Your task to perform on an android device: Search for sushi restaurants on Maps Image 0: 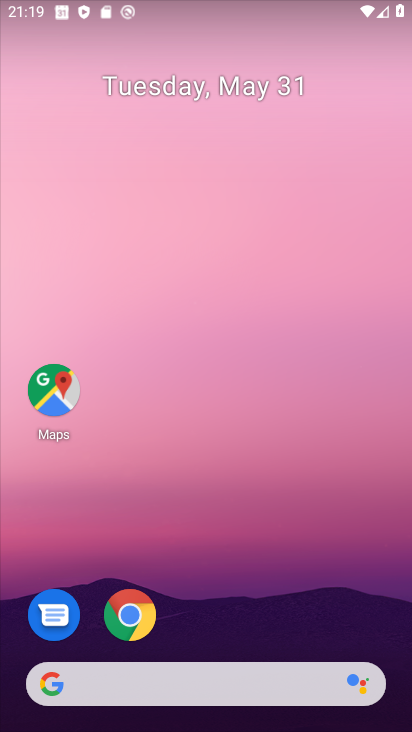
Step 0: press home button
Your task to perform on an android device: Search for sushi restaurants on Maps Image 1: 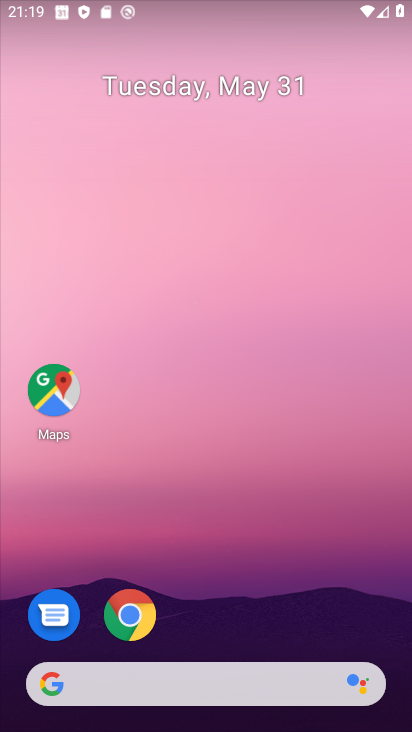
Step 1: click (66, 379)
Your task to perform on an android device: Search for sushi restaurants on Maps Image 2: 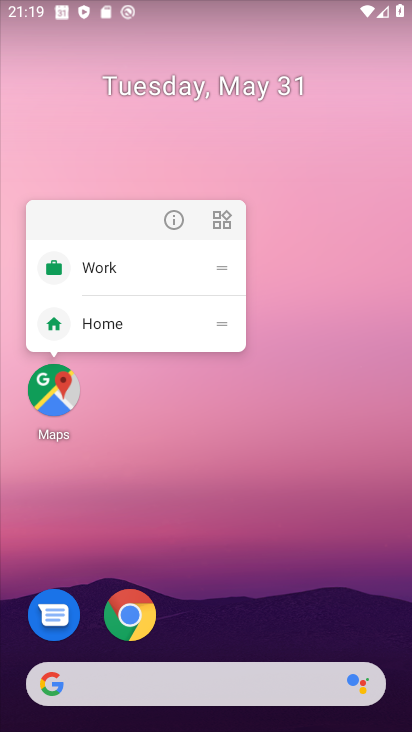
Step 2: click (39, 395)
Your task to perform on an android device: Search for sushi restaurants on Maps Image 3: 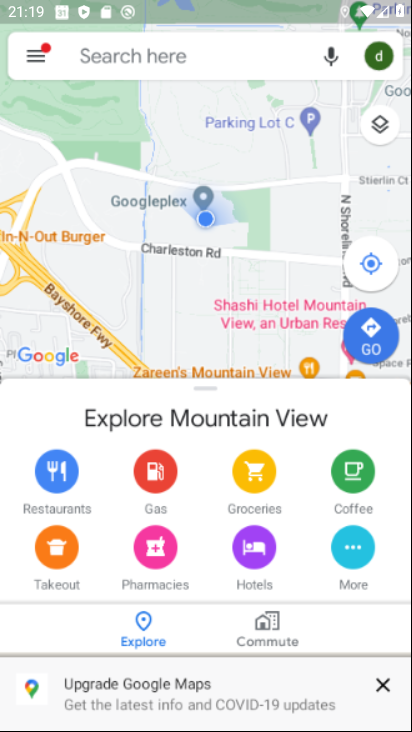
Step 3: click (158, 58)
Your task to perform on an android device: Search for sushi restaurants on Maps Image 4: 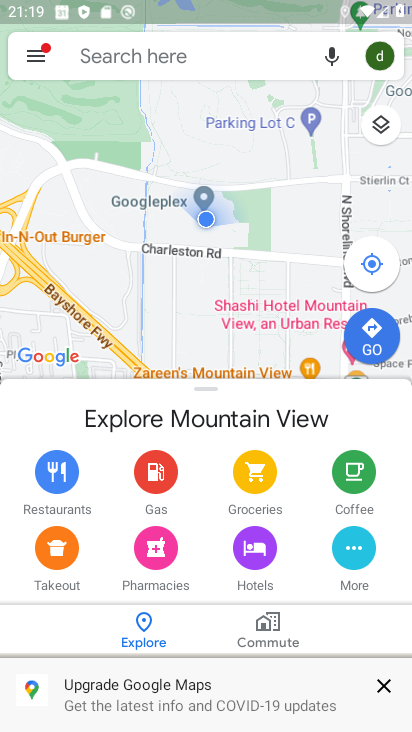
Step 4: click (174, 53)
Your task to perform on an android device: Search for sushi restaurants on Maps Image 5: 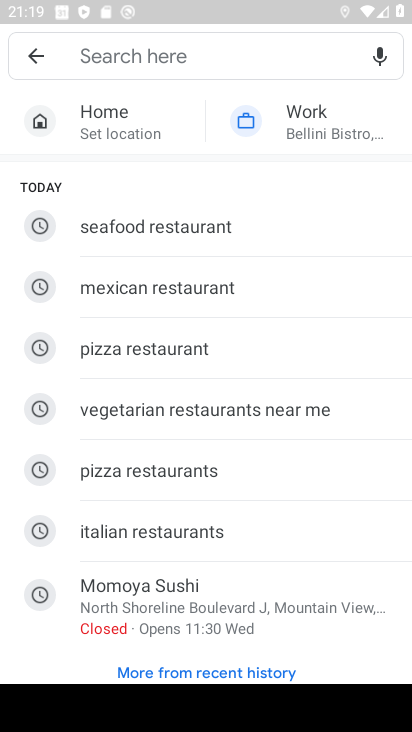
Step 5: type " sushi restaurants"
Your task to perform on an android device: Search for sushi restaurants on Maps Image 6: 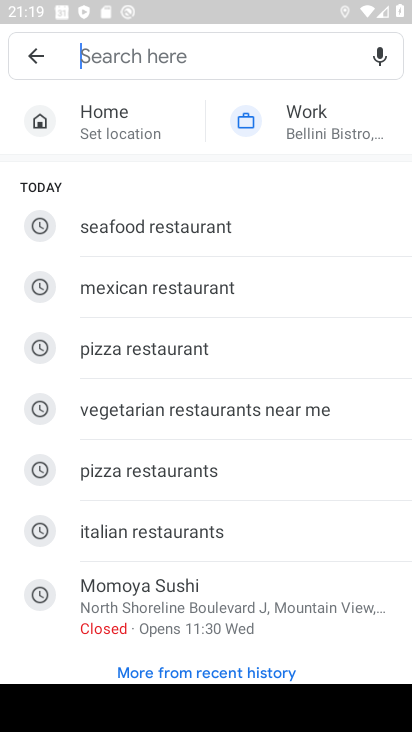
Step 6: click (108, 53)
Your task to perform on an android device: Search for sushi restaurants on Maps Image 7: 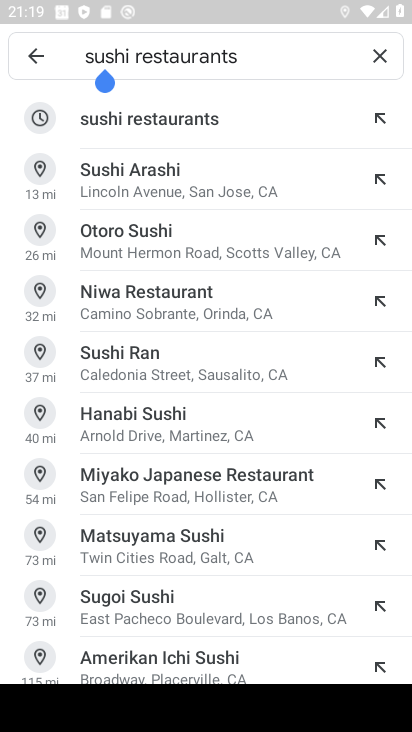
Step 7: click (162, 123)
Your task to perform on an android device: Search for sushi restaurants on Maps Image 8: 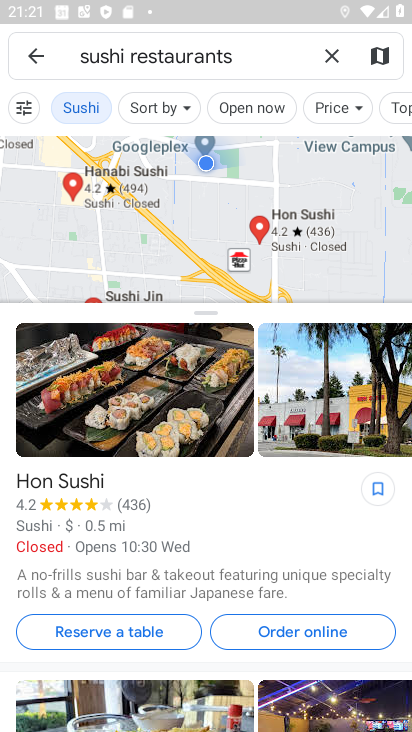
Step 8: task complete